Your task to perform on an android device: empty trash in google photos Image 0: 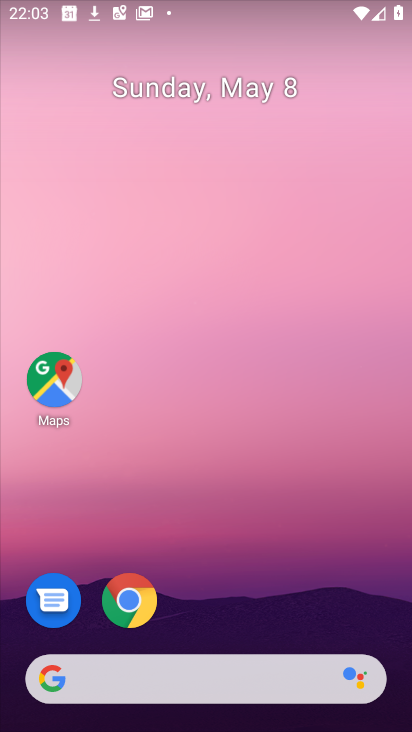
Step 0: drag from (243, 700) to (345, 115)
Your task to perform on an android device: empty trash in google photos Image 1: 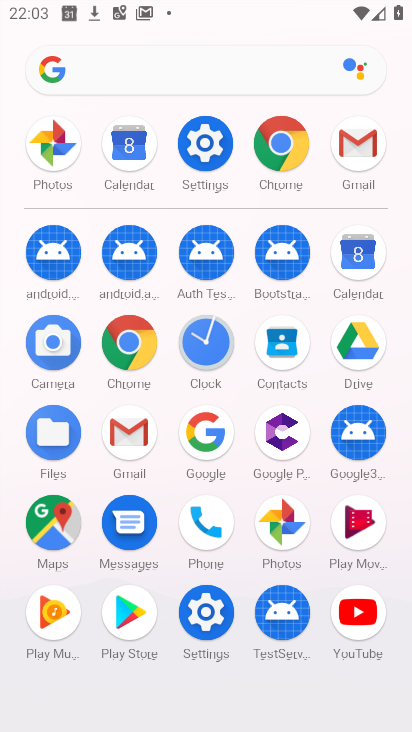
Step 1: click (277, 523)
Your task to perform on an android device: empty trash in google photos Image 2: 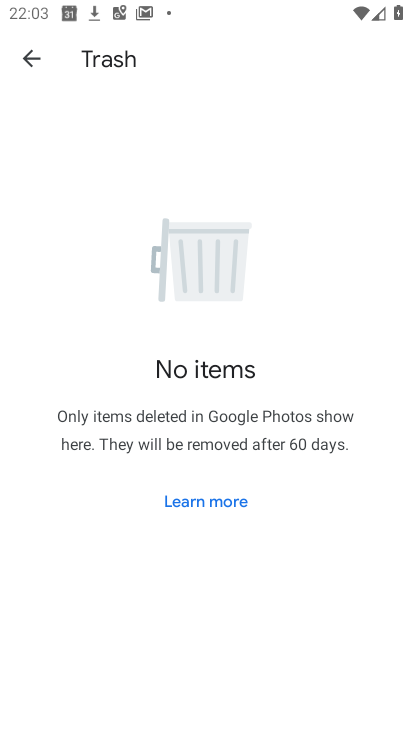
Step 2: task complete